Your task to perform on an android device: remove spam from my inbox in the gmail app Image 0: 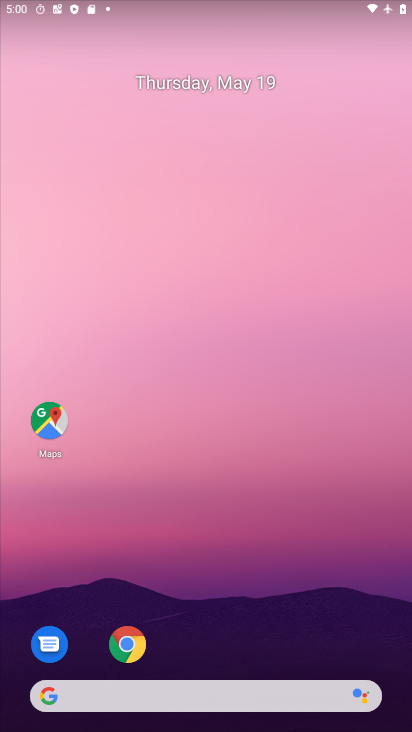
Step 0: drag from (196, 667) to (195, 269)
Your task to perform on an android device: remove spam from my inbox in the gmail app Image 1: 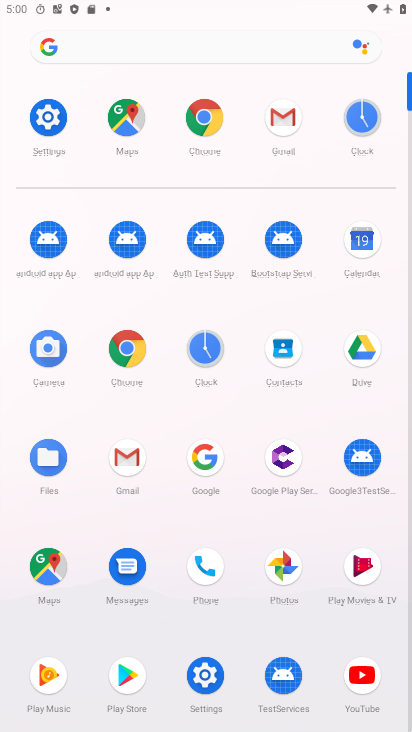
Step 1: click (131, 451)
Your task to perform on an android device: remove spam from my inbox in the gmail app Image 2: 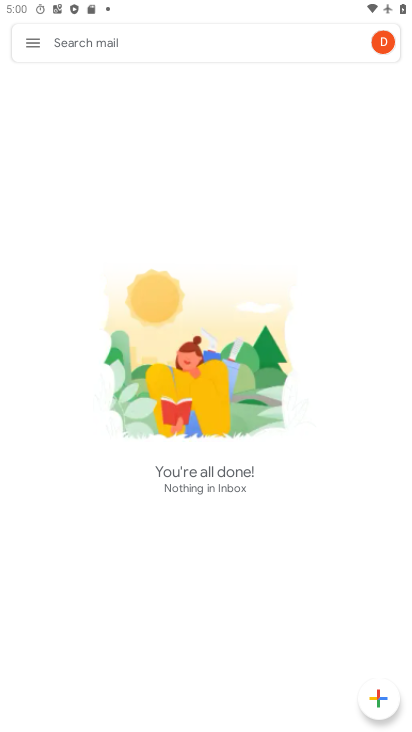
Step 2: click (36, 43)
Your task to perform on an android device: remove spam from my inbox in the gmail app Image 3: 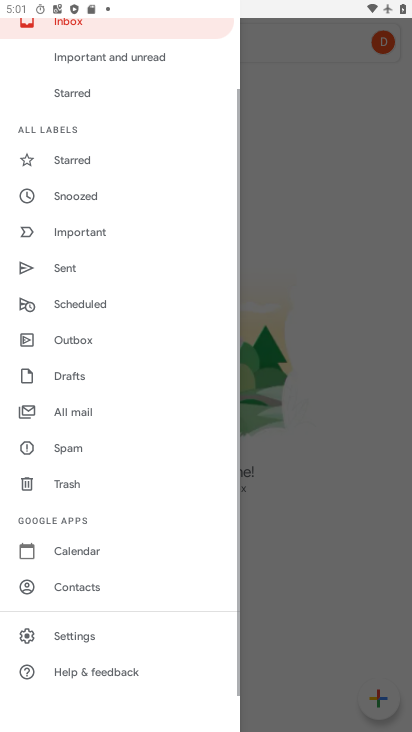
Step 3: click (77, 639)
Your task to perform on an android device: remove spam from my inbox in the gmail app Image 4: 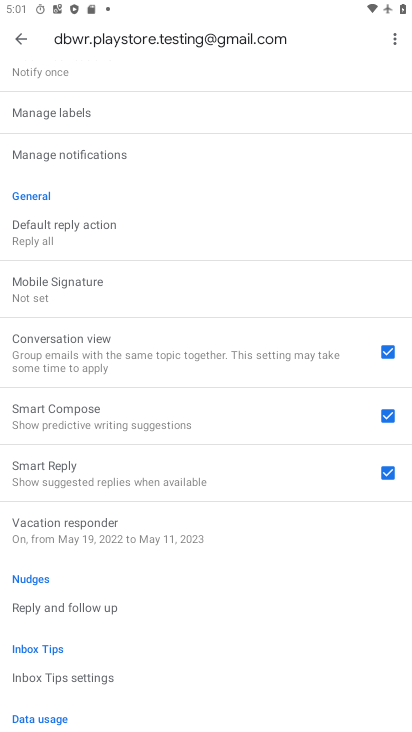
Step 4: click (17, 38)
Your task to perform on an android device: remove spam from my inbox in the gmail app Image 5: 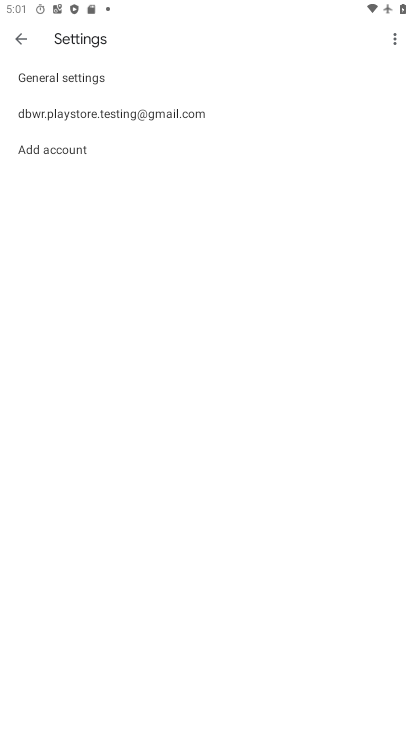
Step 5: click (30, 37)
Your task to perform on an android device: remove spam from my inbox in the gmail app Image 6: 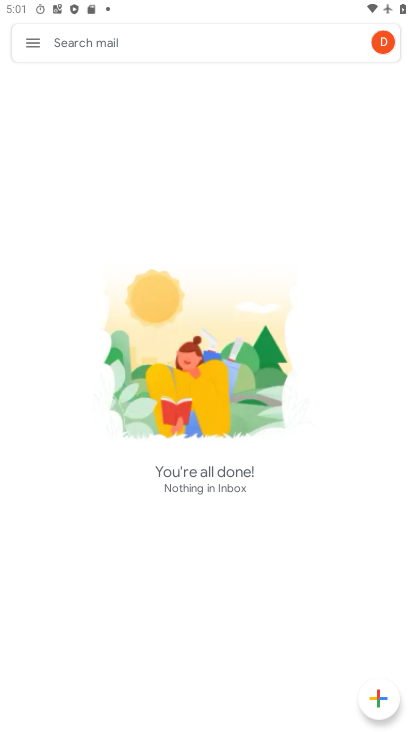
Step 6: click (39, 38)
Your task to perform on an android device: remove spam from my inbox in the gmail app Image 7: 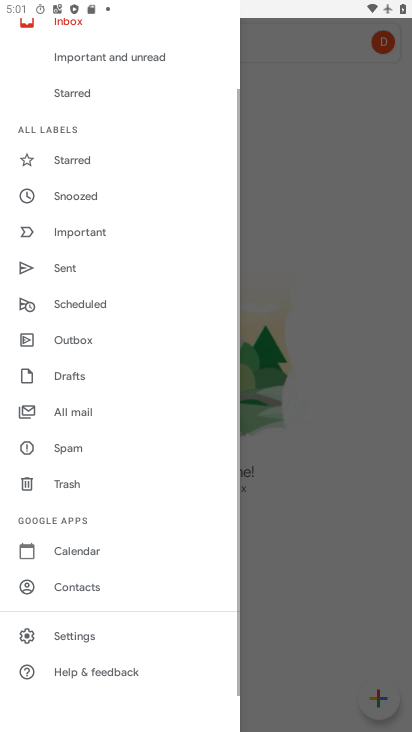
Step 7: click (60, 449)
Your task to perform on an android device: remove spam from my inbox in the gmail app Image 8: 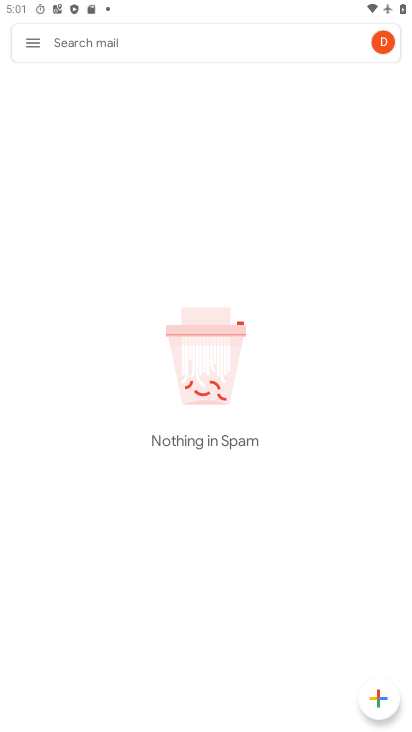
Step 8: task complete